Your task to perform on an android device: turn on bluetooth scan Image 0: 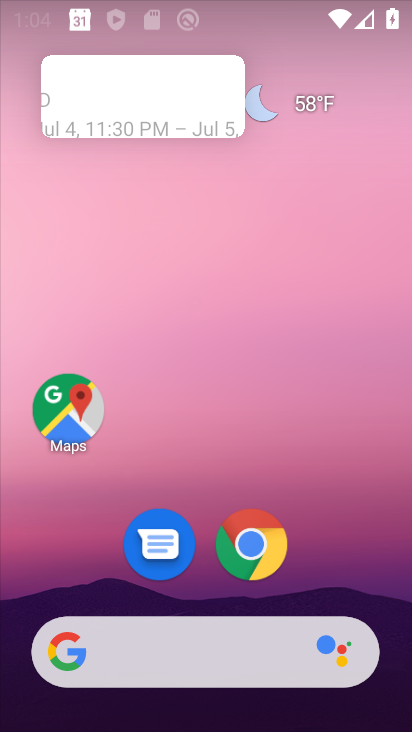
Step 0: drag from (222, 645) to (256, 27)
Your task to perform on an android device: turn on bluetooth scan Image 1: 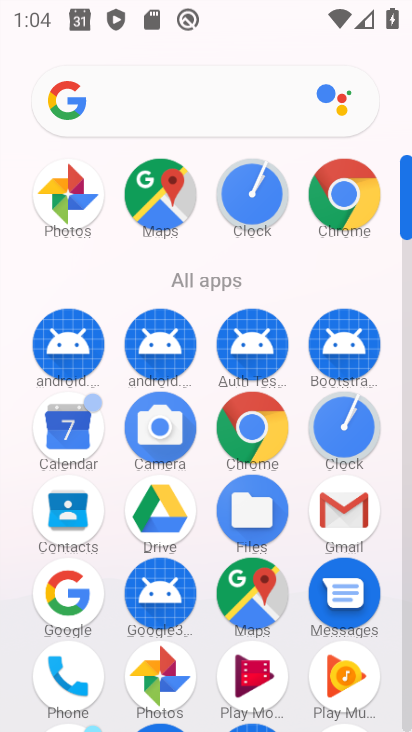
Step 1: drag from (203, 597) to (245, 35)
Your task to perform on an android device: turn on bluetooth scan Image 2: 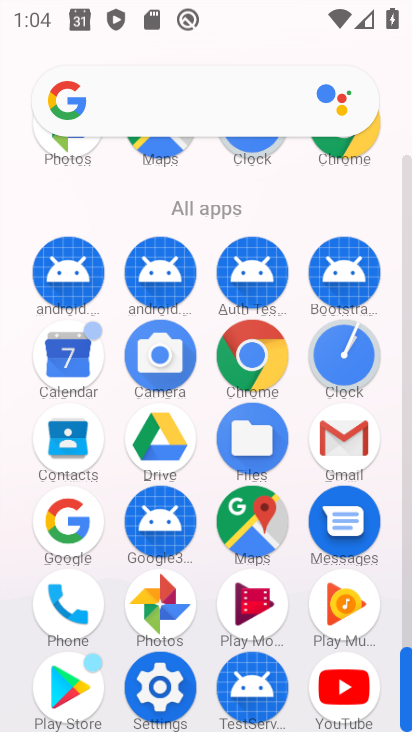
Step 2: click (167, 670)
Your task to perform on an android device: turn on bluetooth scan Image 3: 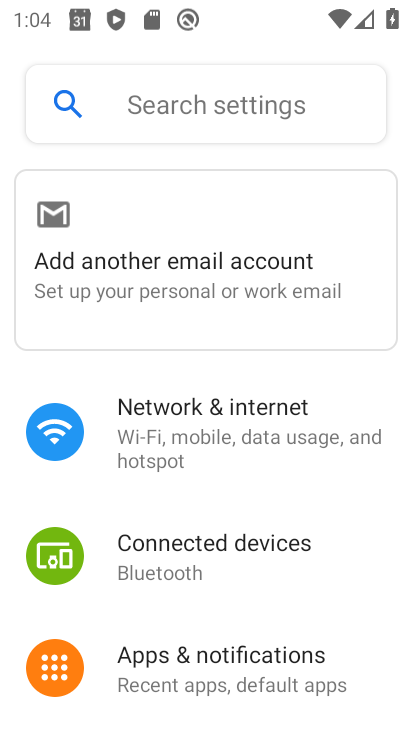
Step 3: drag from (232, 623) to (171, 10)
Your task to perform on an android device: turn on bluetooth scan Image 4: 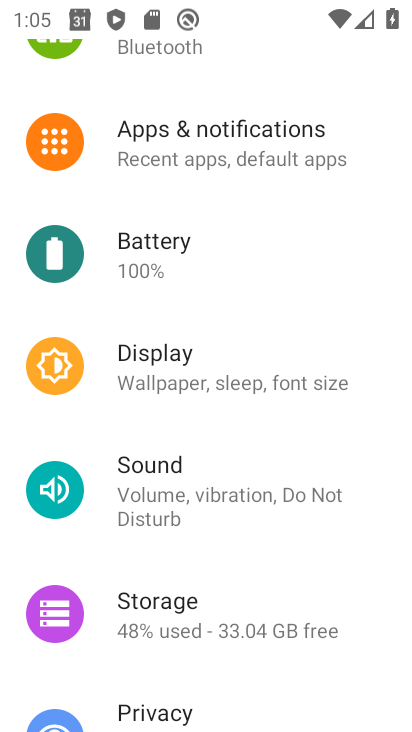
Step 4: drag from (175, 633) to (295, 132)
Your task to perform on an android device: turn on bluetooth scan Image 5: 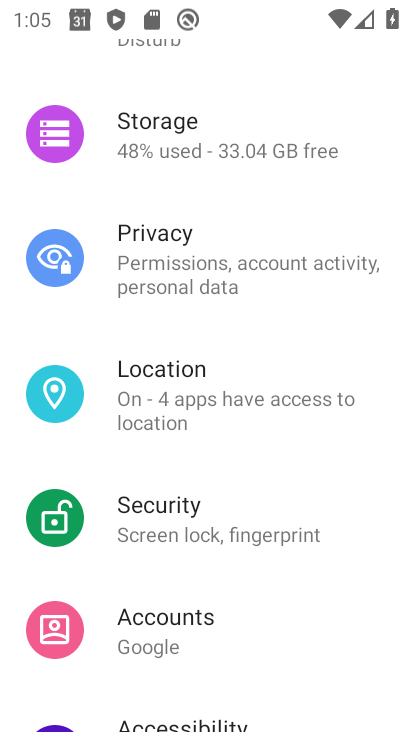
Step 5: click (192, 398)
Your task to perform on an android device: turn on bluetooth scan Image 6: 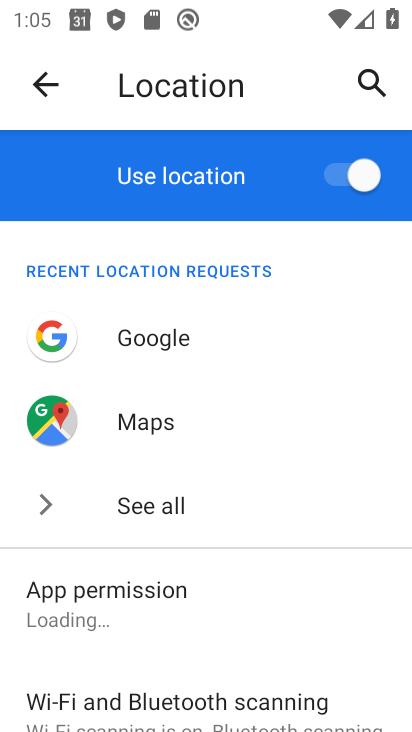
Step 6: drag from (175, 643) to (300, 128)
Your task to perform on an android device: turn on bluetooth scan Image 7: 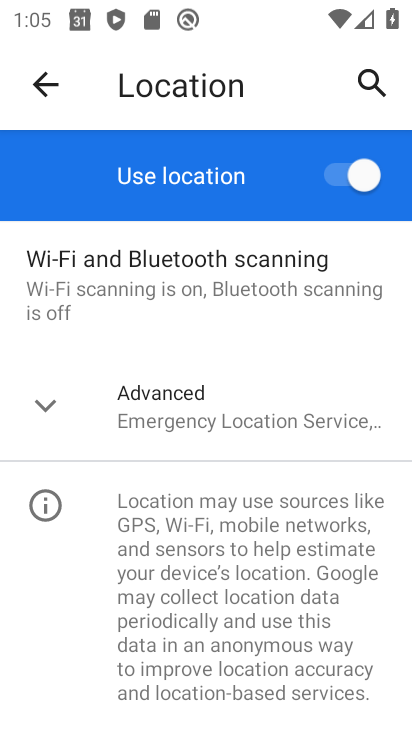
Step 7: click (236, 270)
Your task to perform on an android device: turn on bluetooth scan Image 8: 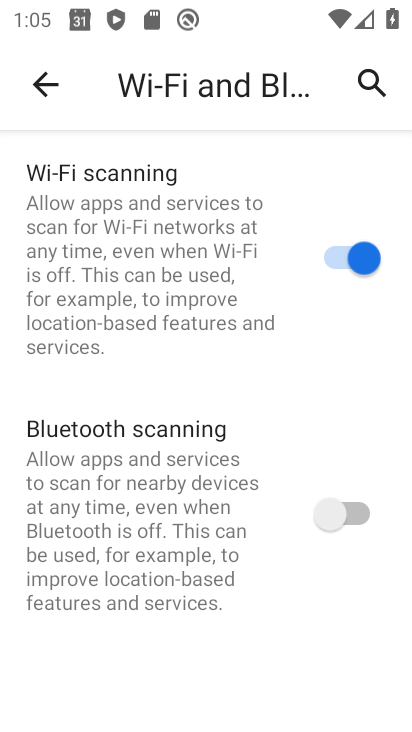
Step 8: click (357, 514)
Your task to perform on an android device: turn on bluetooth scan Image 9: 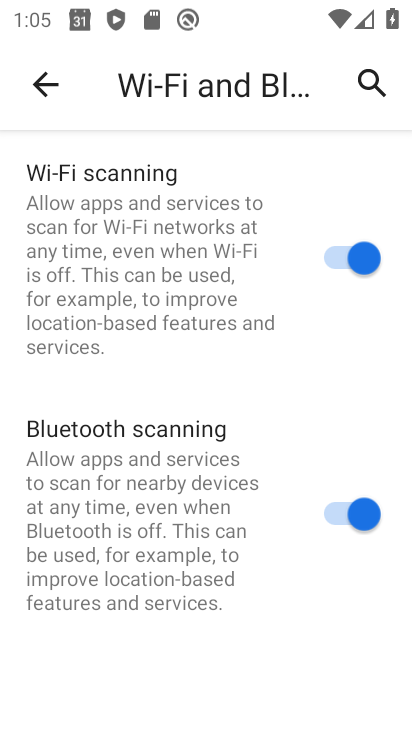
Step 9: task complete